Your task to perform on an android device: Open eBay Image 0: 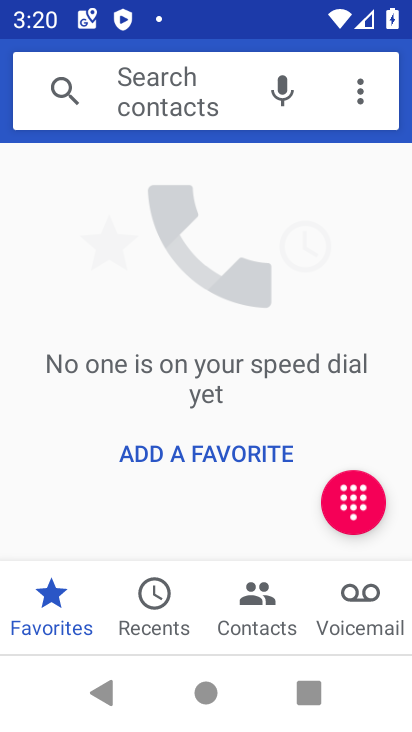
Step 0: press home button
Your task to perform on an android device: Open eBay Image 1: 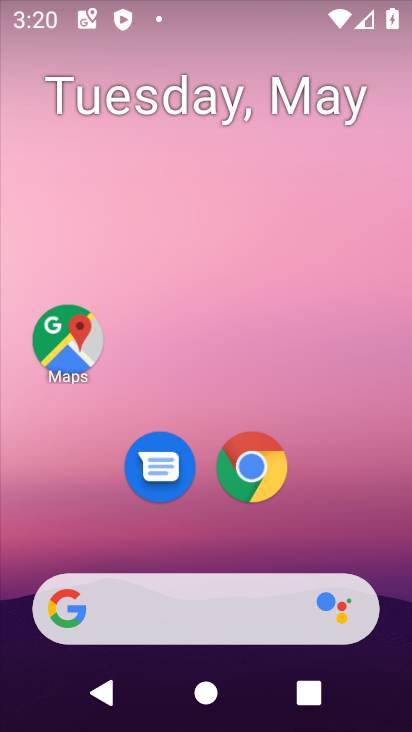
Step 1: click (172, 605)
Your task to perform on an android device: Open eBay Image 2: 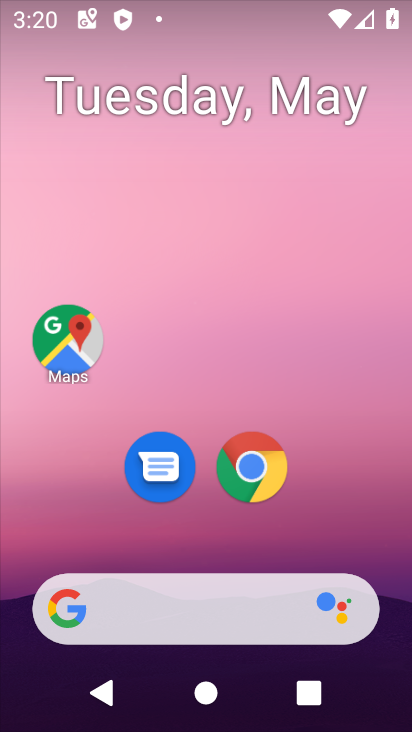
Step 2: click (154, 617)
Your task to perform on an android device: Open eBay Image 3: 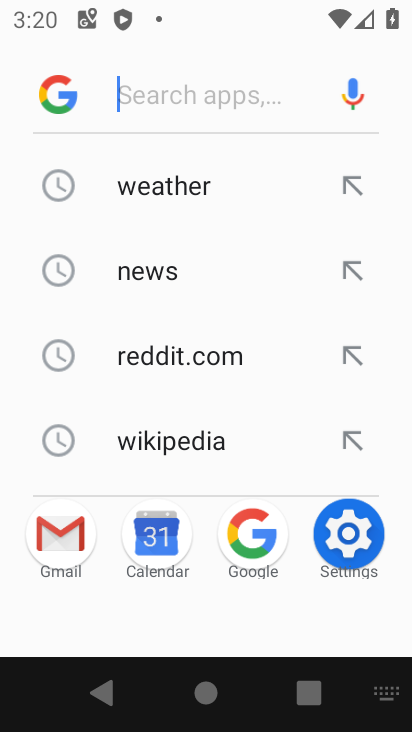
Step 3: click (150, 618)
Your task to perform on an android device: Open eBay Image 4: 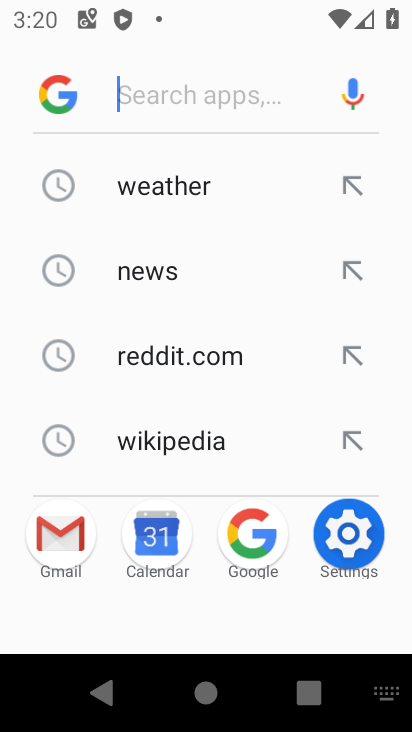
Step 4: type " eBay"
Your task to perform on an android device: Open eBay Image 5: 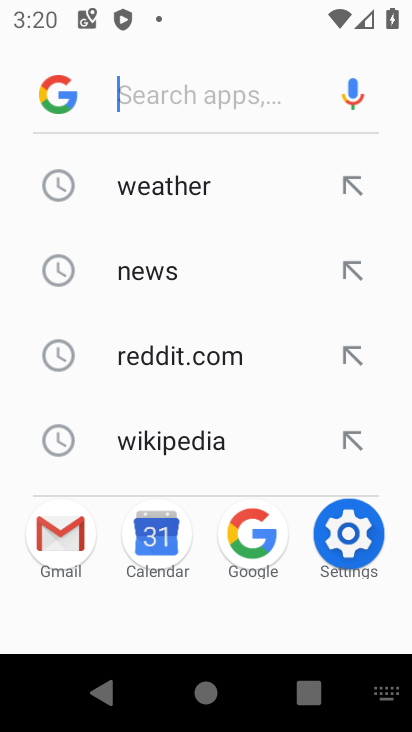
Step 5: click (167, 93)
Your task to perform on an android device: Open eBay Image 6: 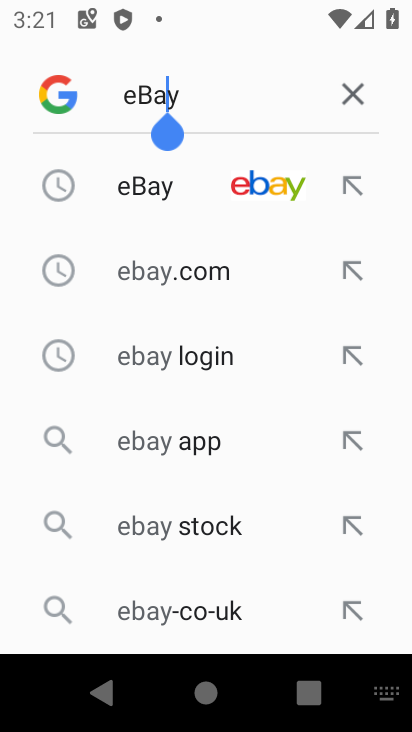
Step 6: click (155, 178)
Your task to perform on an android device: Open eBay Image 7: 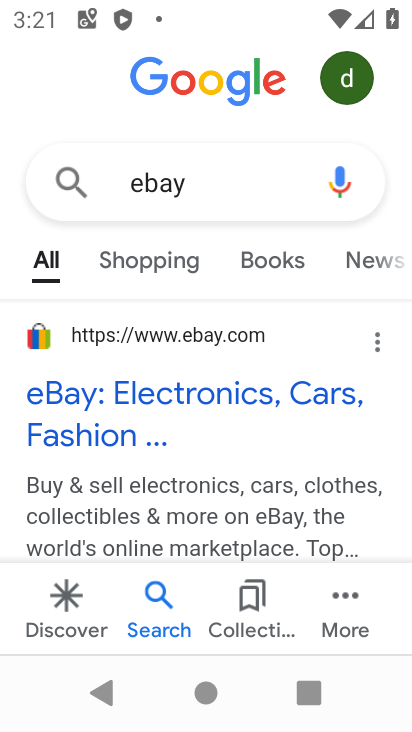
Step 7: click (90, 412)
Your task to perform on an android device: Open eBay Image 8: 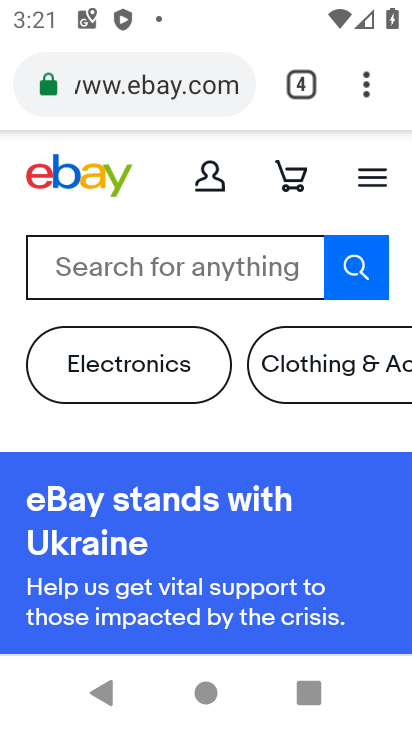
Step 8: task complete